Your task to perform on an android device: turn on notifications settings in the gmail app Image 0: 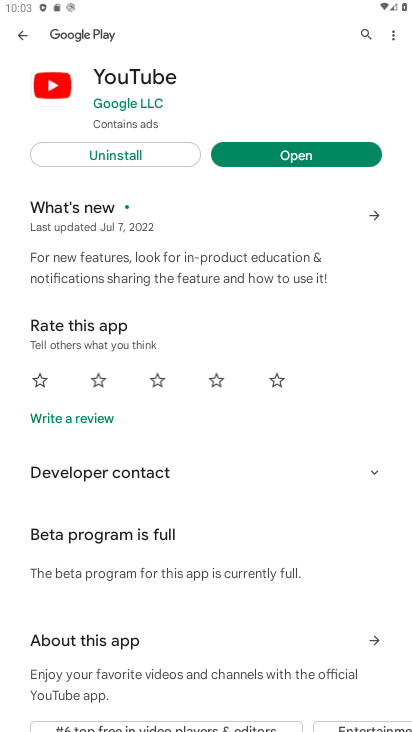
Step 0: press home button
Your task to perform on an android device: turn on notifications settings in the gmail app Image 1: 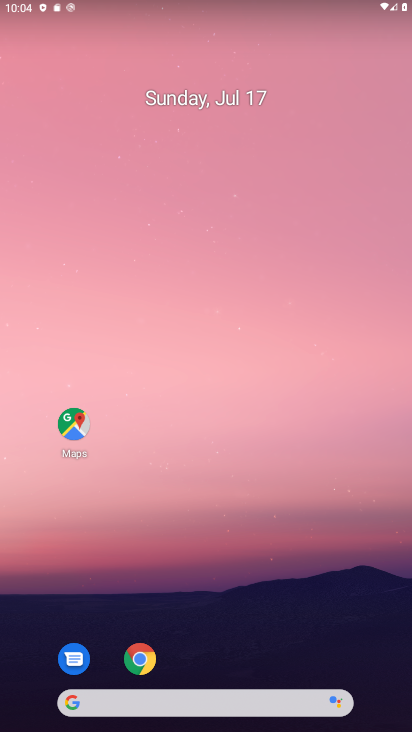
Step 1: drag from (190, 693) to (197, 14)
Your task to perform on an android device: turn on notifications settings in the gmail app Image 2: 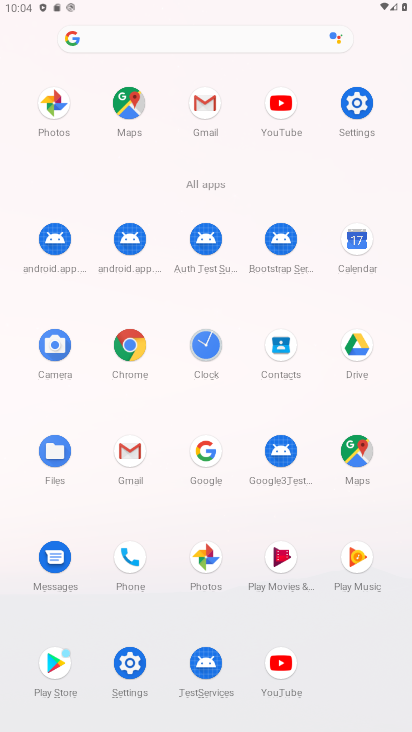
Step 2: click (142, 454)
Your task to perform on an android device: turn on notifications settings in the gmail app Image 3: 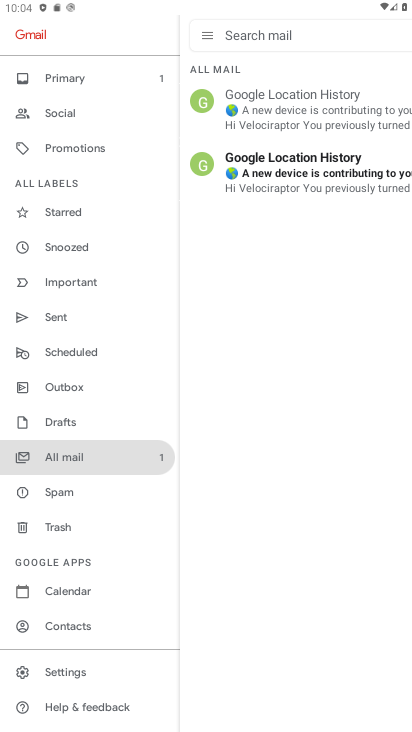
Step 3: click (71, 663)
Your task to perform on an android device: turn on notifications settings in the gmail app Image 4: 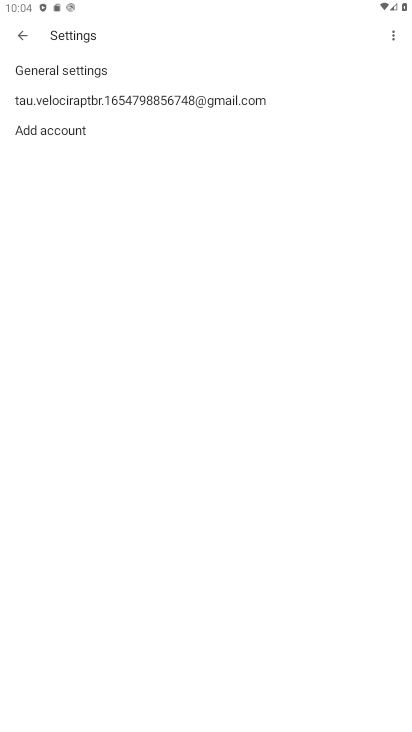
Step 4: click (150, 111)
Your task to perform on an android device: turn on notifications settings in the gmail app Image 5: 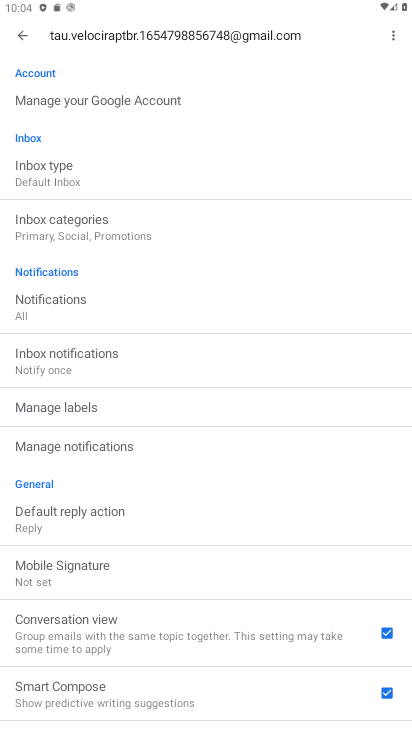
Step 5: click (116, 450)
Your task to perform on an android device: turn on notifications settings in the gmail app Image 6: 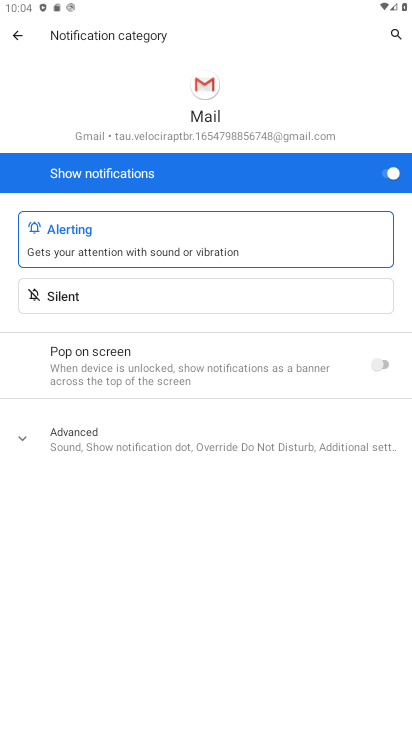
Step 6: task complete